Your task to perform on an android device: When is my next meeting? Image 0: 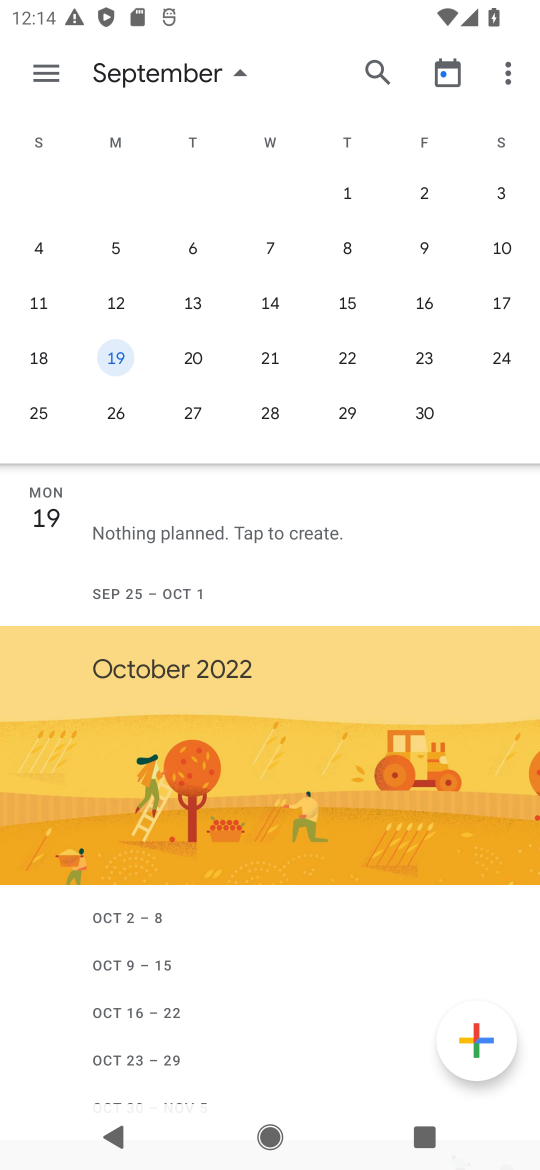
Step 0: drag from (212, 870) to (263, 1146)
Your task to perform on an android device: When is my next meeting? Image 1: 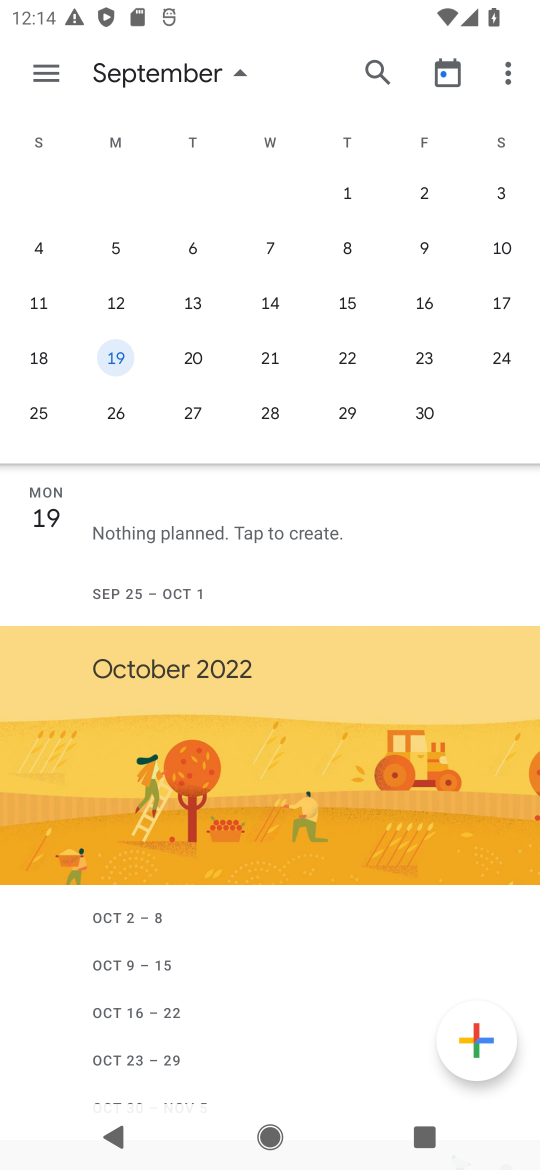
Step 1: drag from (239, 578) to (227, 1144)
Your task to perform on an android device: When is my next meeting? Image 2: 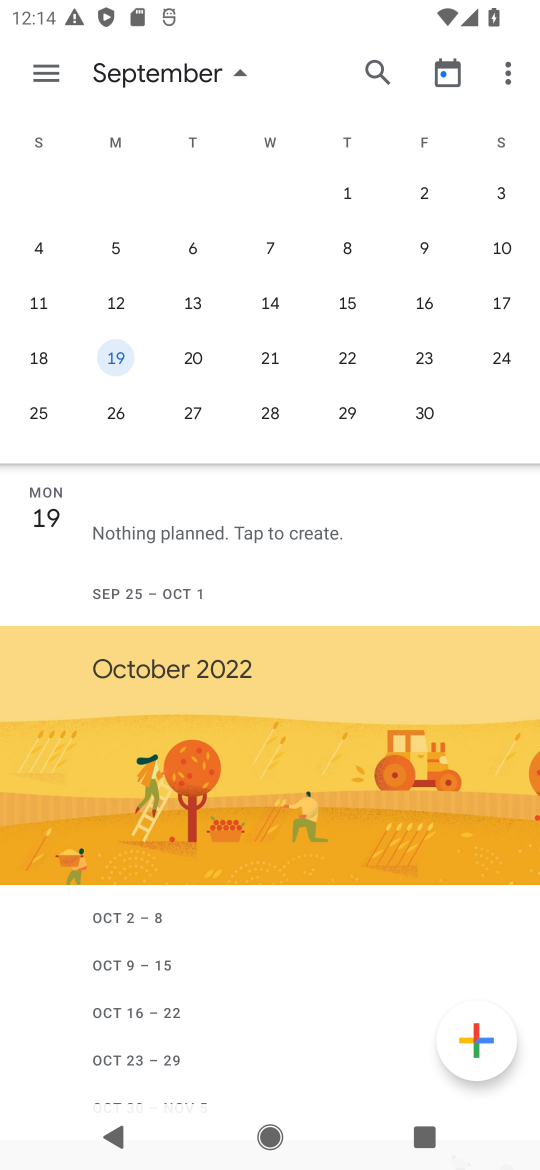
Step 2: drag from (36, 352) to (504, 351)
Your task to perform on an android device: When is my next meeting? Image 3: 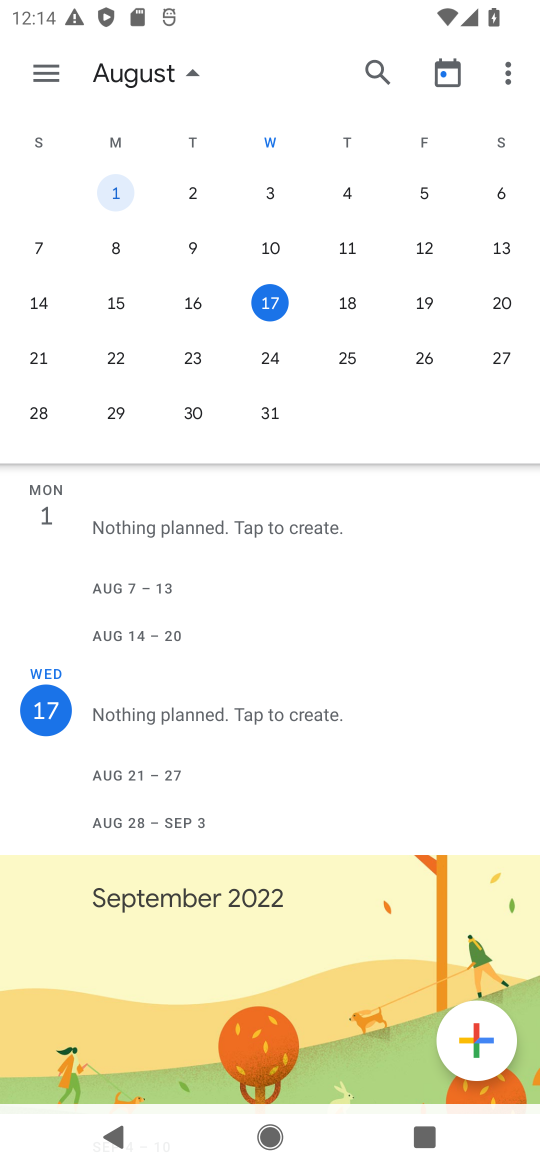
Step 3: click (275, 303)
Your task to perform on an android device: When is my next meeting? Image 4: 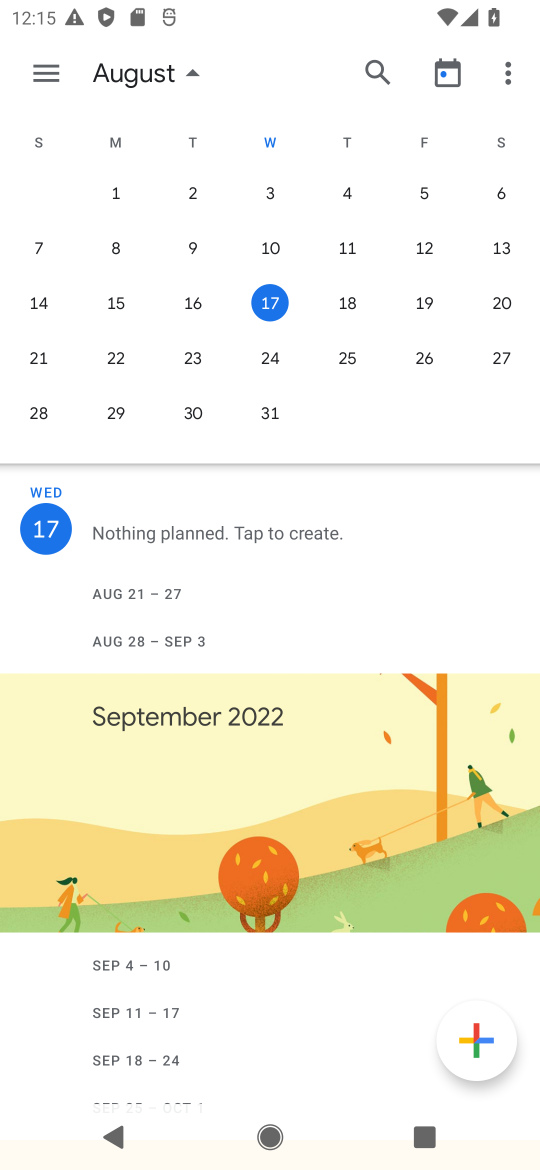
Step 4: task complete